Your task to perform on an android device: toggle improve location accuracy Image 0: 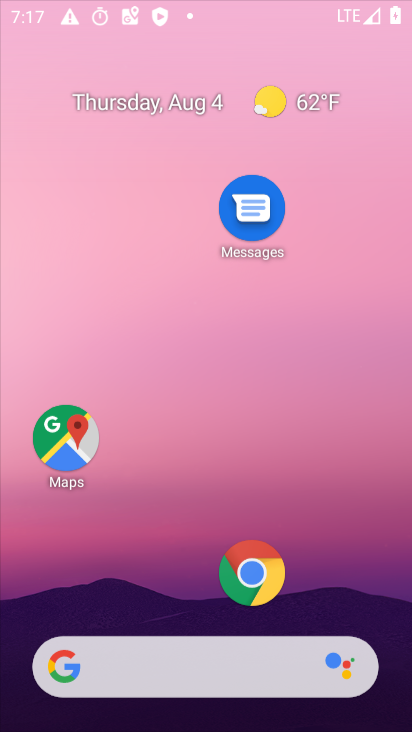
Step 0: press home button
Your task to perform on an android device: toggle improve location accuracy Image 1: 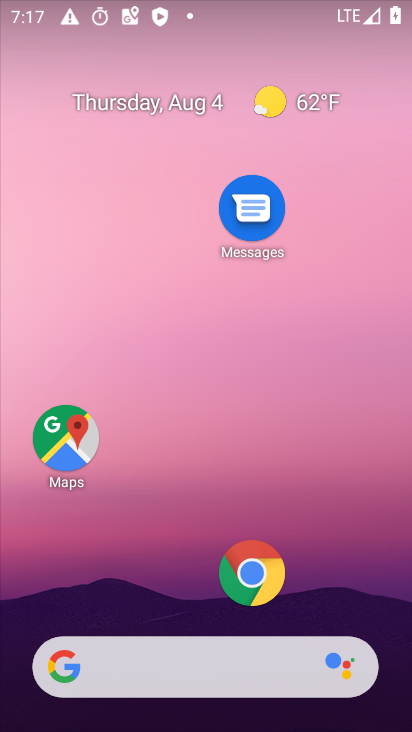
Step 1: drag from (183, 622) to (144, 219)
Your task to perform on an android device: toggle improve location accuracy Image 2: 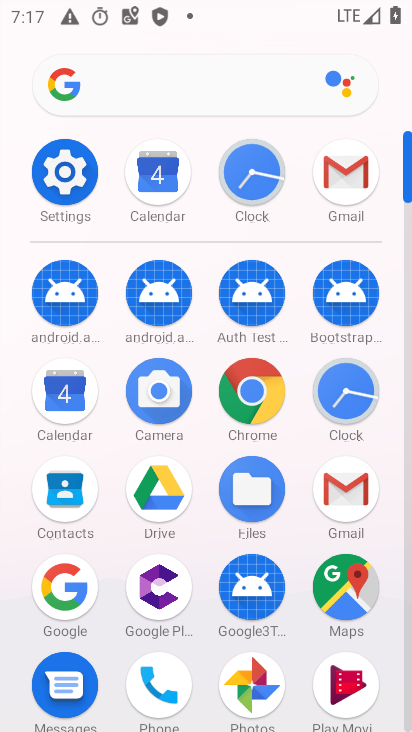
Step 2: click (63, 172)
Your task to perform on an android device: toggle improve location accuracy Image 3: 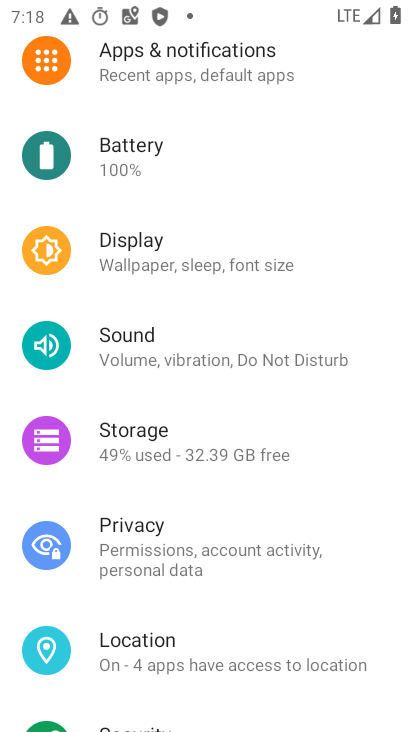
Step 3: click (145, 651)
Your task to perform on an android device: toggle improve location accuracy Image 4: 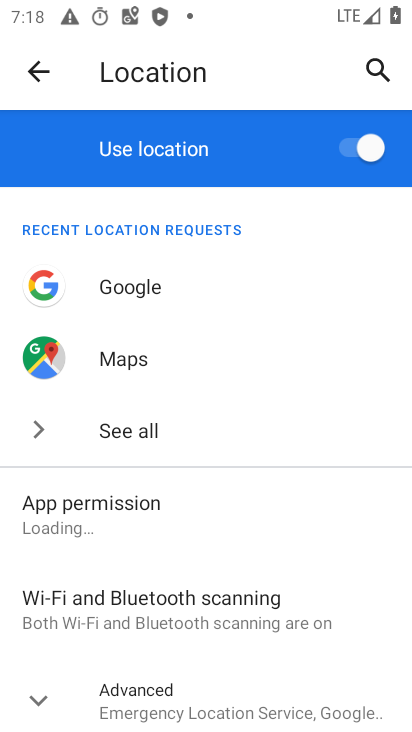
Step 4: click (140, 696)
Your task to perform on an android device: toggle improve location accuracy Image 5: 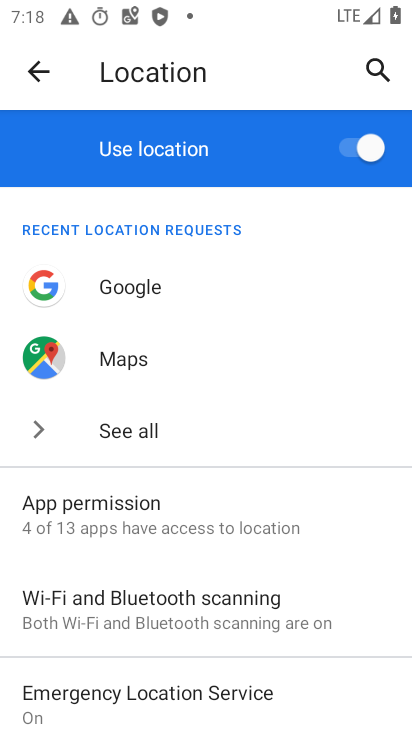
Step 5: task complete